Your task to perform on an android device: Open my contact list Image 0: 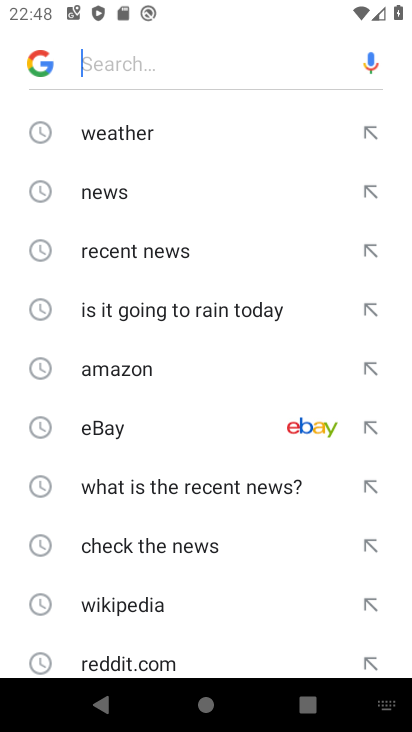
Step 0: press home button
Your task to perform on an android device: Open my contact list Image 1: 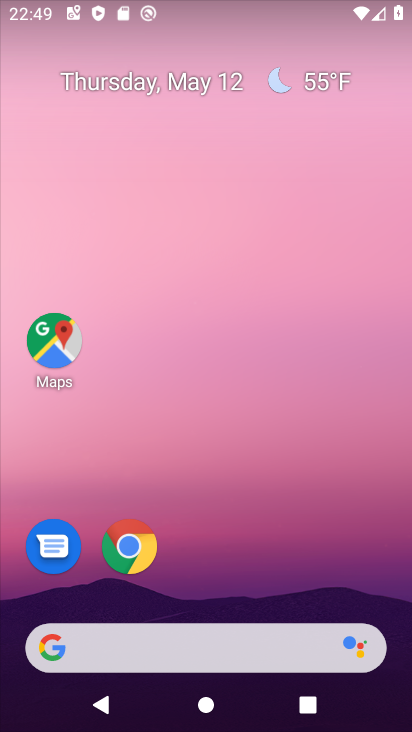
Step 1: drag from (234, 353) to (273, 163)
Your task to perform on an android device: Open my contact list Image 2: 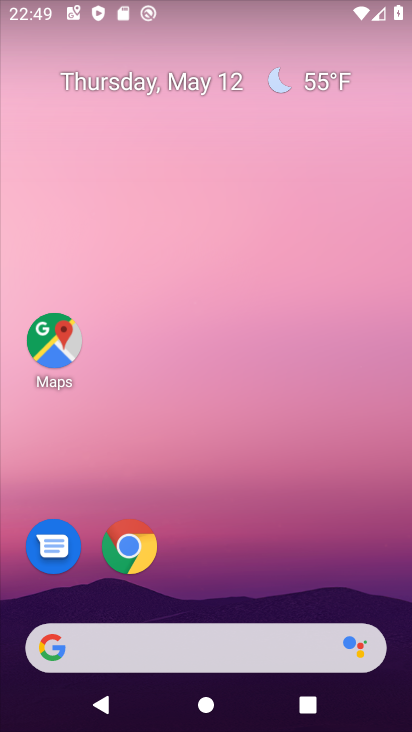
Step 2: drag from (188, 525) to (258, 162)
Your task to perform on an android device: Open my contact list Image 3: 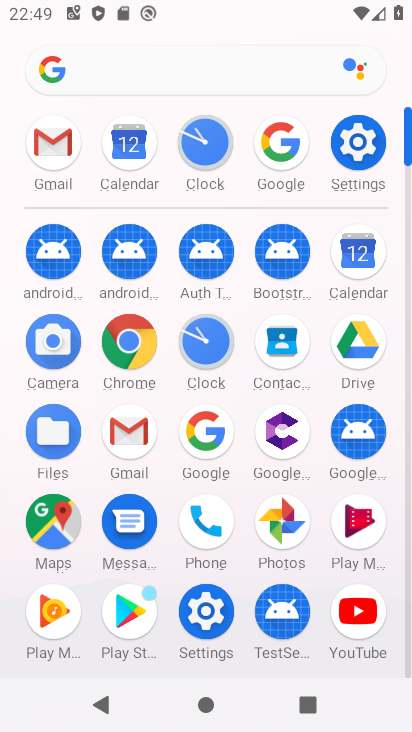
Step 3: click (276, 361)
Your task to perform on an android device: Open my contact list Image 4: 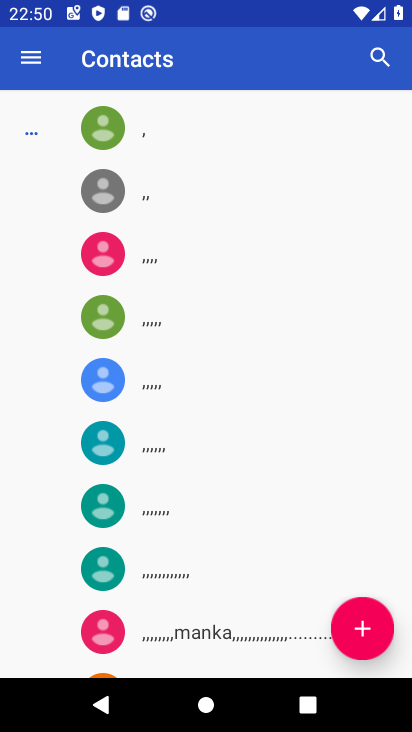
Step 4: click (380, 620)
Your task to perform on an android device: Open my contact list Image 5: 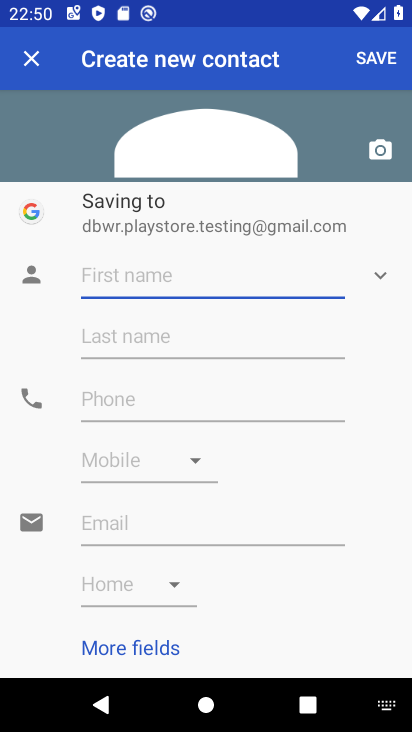
Step 5: type "fhnb"
Your task to perform on an android device: Open my contact list Image 6: 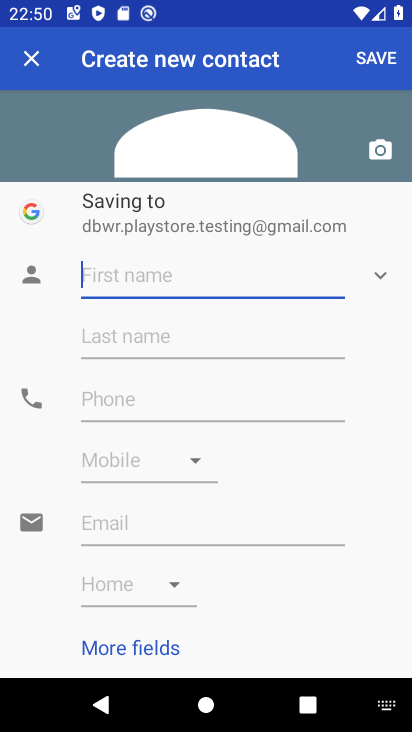
Step 6: click (189, 344)
Your task to perform on an android device: Open my contact list Image 7: 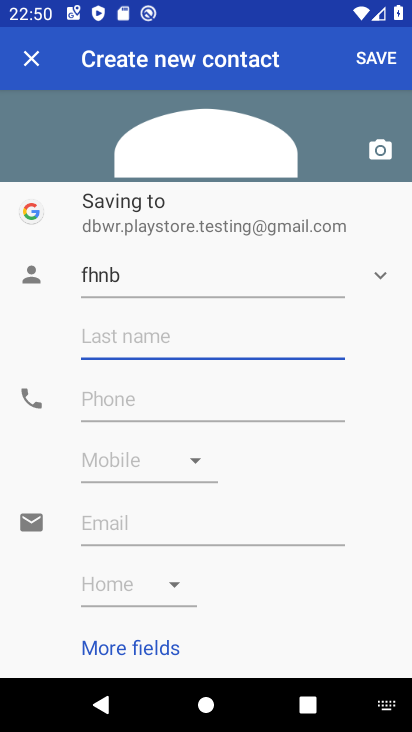
Step 7: type "fgdfg"
Your task to perform on an android device: Open my contact list Image 8: 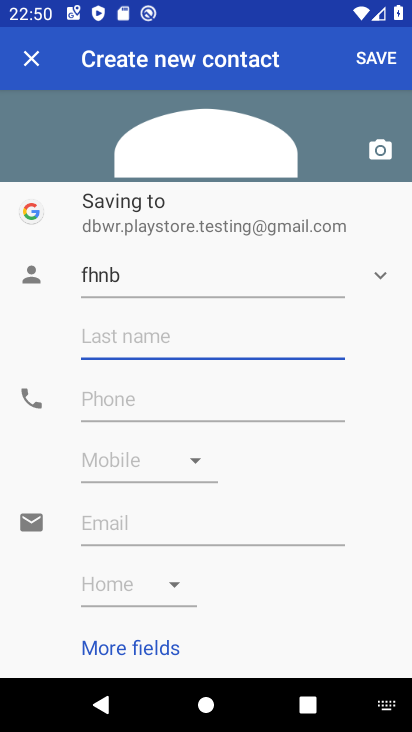
Step 8: click (80, 401)
Your task to perform on an android device: Open my contact list Image 9: 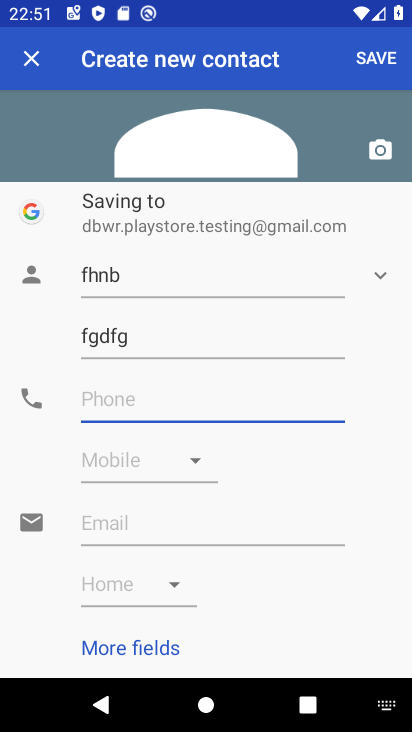
Step 9: type "4657"
Your task to perform on an android device: Open my contact list Image 10: 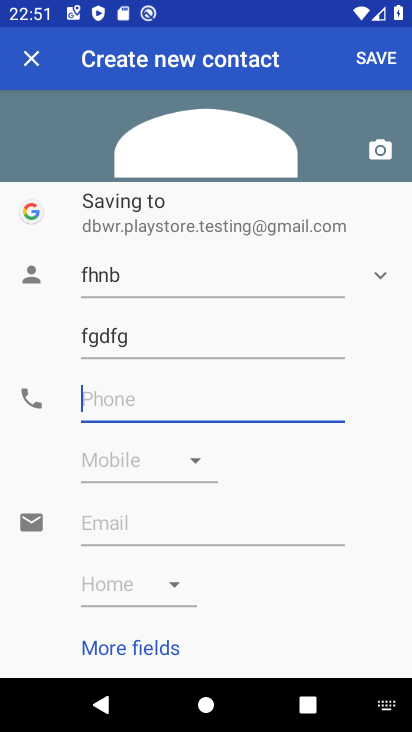
Step 10: click (98, 457)
Your task to perform on an android device: Open my contact list Image 11: 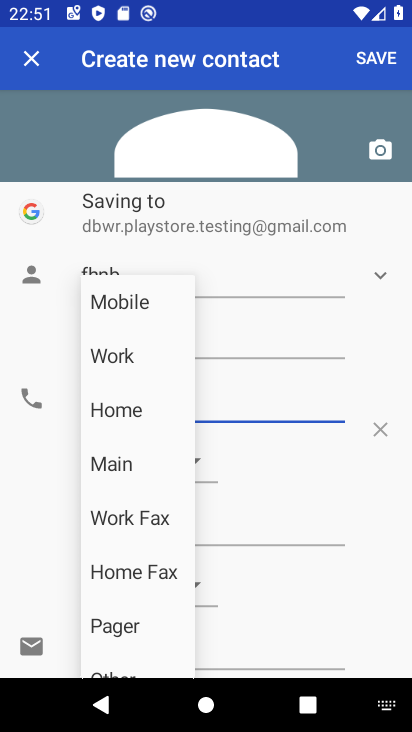
Step 11: click (371, 62)
Your task to perform on an android device: Open my contact list Image 12: 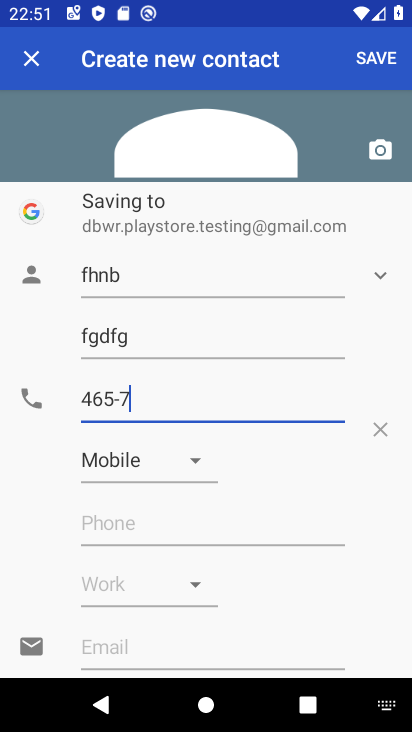
Step 12: click (380, 57)
Your task to perform on an android device: Open my contact list Image 13: 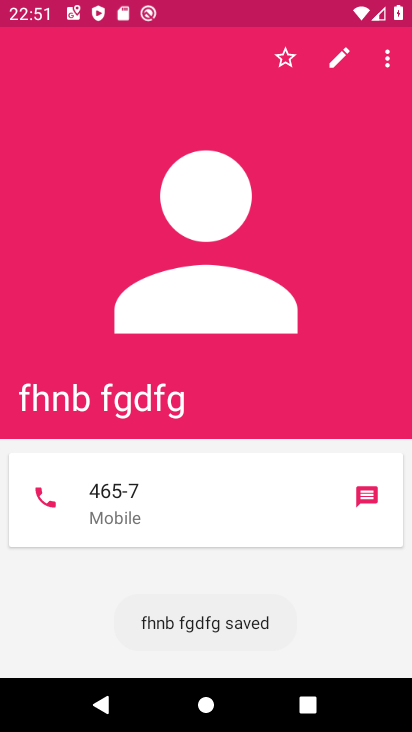
Step 13: task complete